Your task to perform on an android device: Search for bose soundsport free on target, select the first entry, add it to the cart, then select checkout. Image 0: 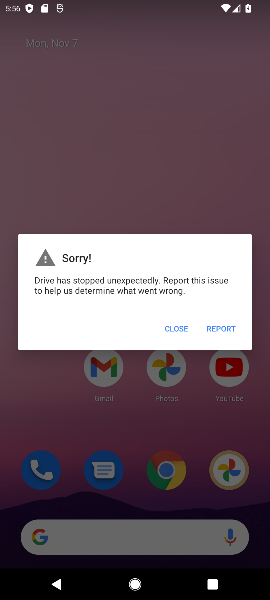
Step 0: click (181, 332)
Your task to perform on an android device: Search for bose soundsport free on target, select the first entry, add it to the cart, then select checkout. Image 1: 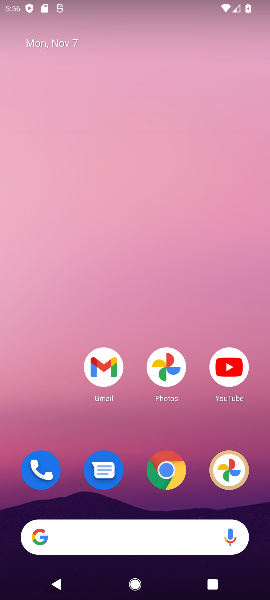
Step 1: click (158, 359)
Your task to perform on an android device: Search for bose soundsport free on target, select the first entry, add it to the cart, then select checkout. Image 2: 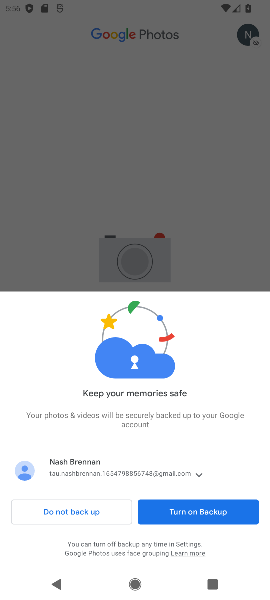
Step 2: press home button
Your task to perform on an android device: Search for bose soundsport free on target, select the first entry, add it to the cart, then select checkout. Image 3: 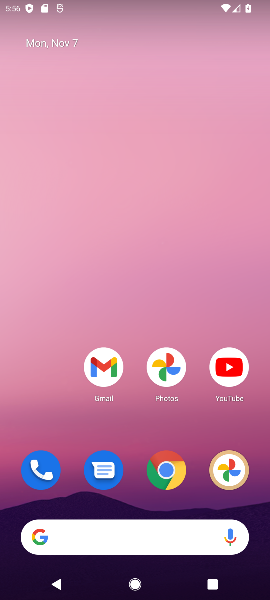
Step 3: click (173, 465)
Your task to perform on an android device: Search for bose soundsport free on target, select the first entry, add it to the cart, then select checkout. Image 4: 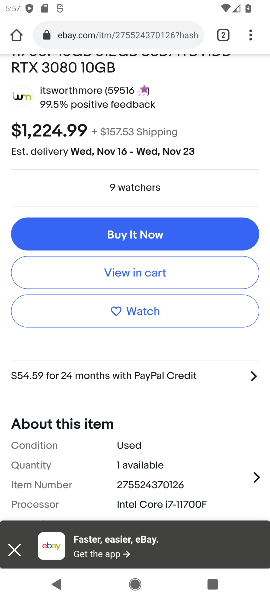
Step 4: click (71, 40)
Your task to perform on an android device: Search for bose soundsport free on target, select the first entry, add it to the cart, then select checkout. Image 5: 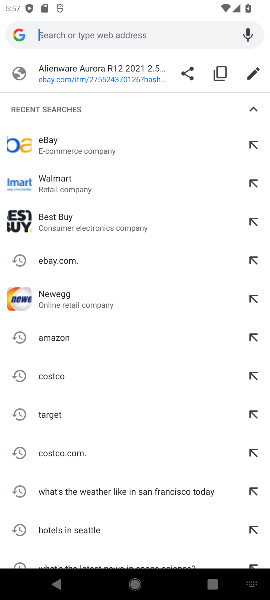
Step 5: click (44, 420)
Your task to perform on an android device: Search for bose soundsport free on target, select the first entry, add it to the cart, then select checkout. Image 6: 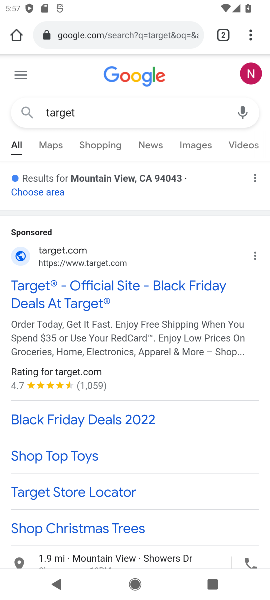
Step 6: click (90, 295)
Your task to perform on an android device: Search for bose soundsport free on target, select the first entry, add it to the cart, then select checkout. Image 7: 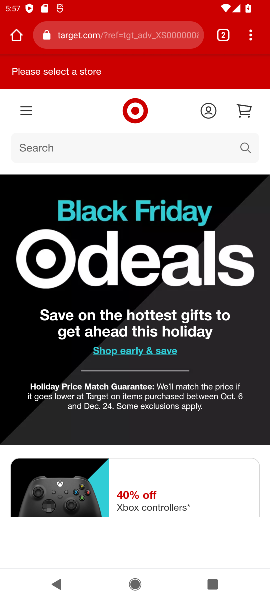
Step 7: click (67, 150)
Your task to perform on an android device: Search for bose soundsport free on target, select the first entry, add it to the cart, then select checkout. Image 8: 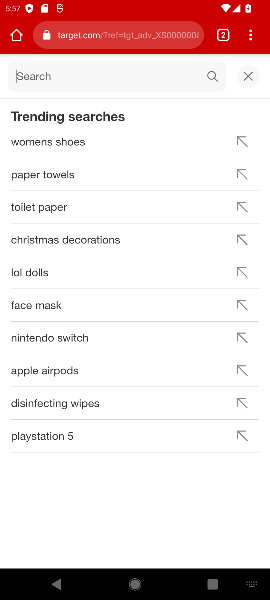
Step 8: type "bose soundsport free "
Your task to perform on an android device: Search for bose soundsport free on target, select the first entry, add it to the cart, then select checkout. Image 9: 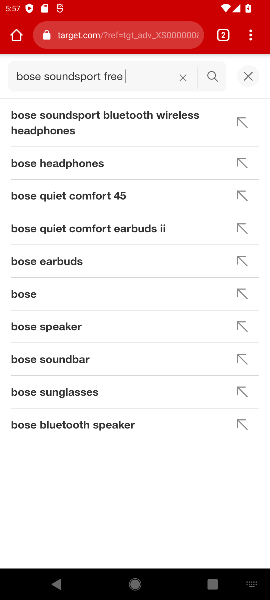
Step 9: click (206, 82)
Your task to perform on an android device: Search for bose soundsport free on target, select the first entry, add it to the cart, then select checkout. Image 10: 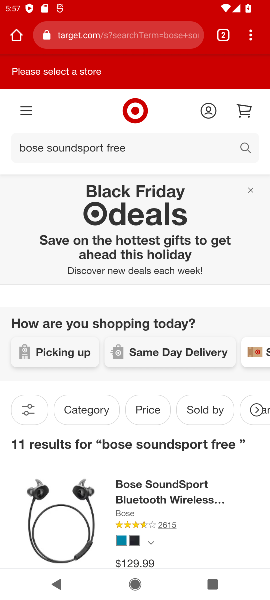
Step 10: drag from (155, 468) to (126, 168)
Your task to perform on an android device: Search for bose soundsport free on target, select the first entry, add it to the cart, then select checkout. Image 11: 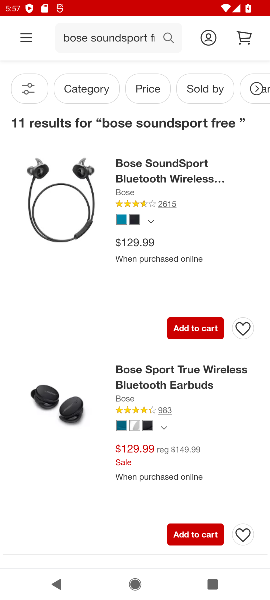
Step 11: click (185, 333)
Your task to perform on an android device: Search for bose soundsport free on target, select the first entry, add it to the cart, then select checkout. Image 12: 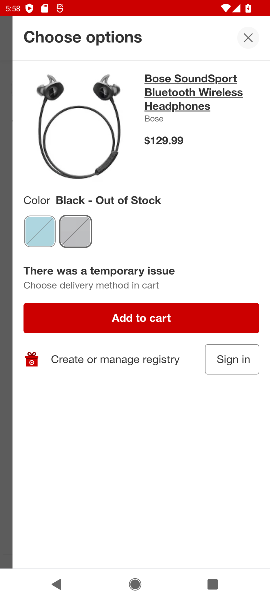
Step 12: click (102, 305)
Your task to perform on an android device: Search for bose soundsport free on target, select the first entry, add it to the cart, then select checkout. Image 13: 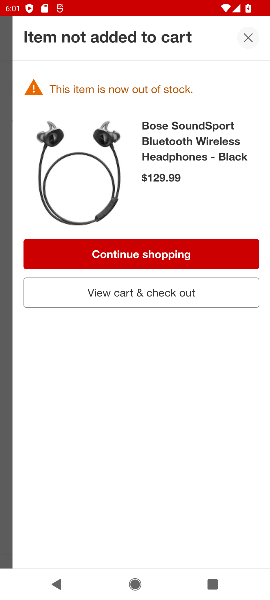
Step 13: task complete